Your task to perform on an android device: Go to notification settings Image 0: 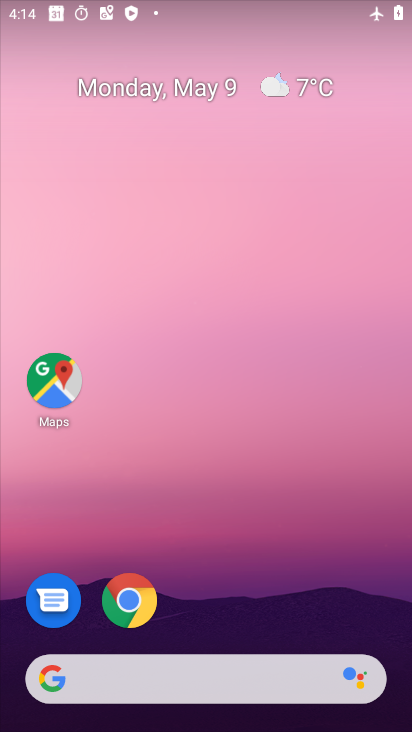
Step 0: drag from (315, 589) to (176, 197)
Your task to perform on an android device: Go to notification settings Image 1: 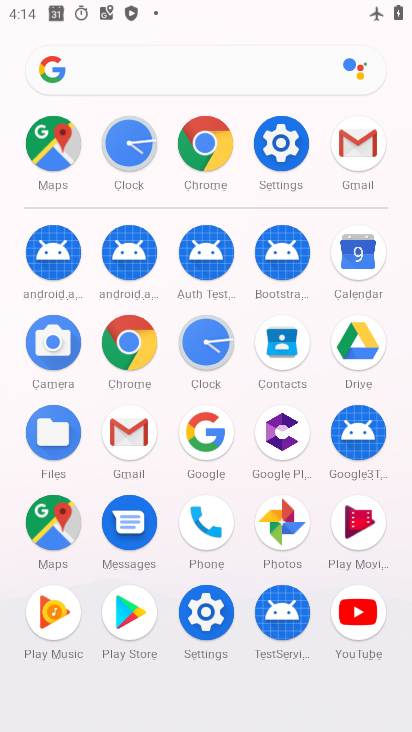
Step 1: click (278, 139)
Your task to perform on an android device: Go to notification settings Image 2: 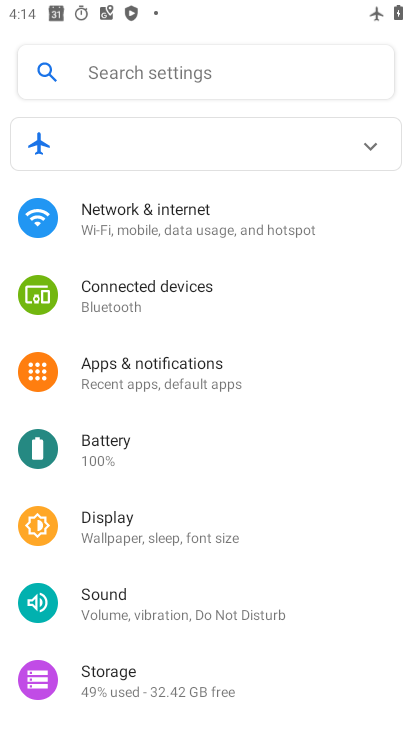
Step 2: click (201, 374)
Your task to perform on an android device: Go to notification settings Image 3: 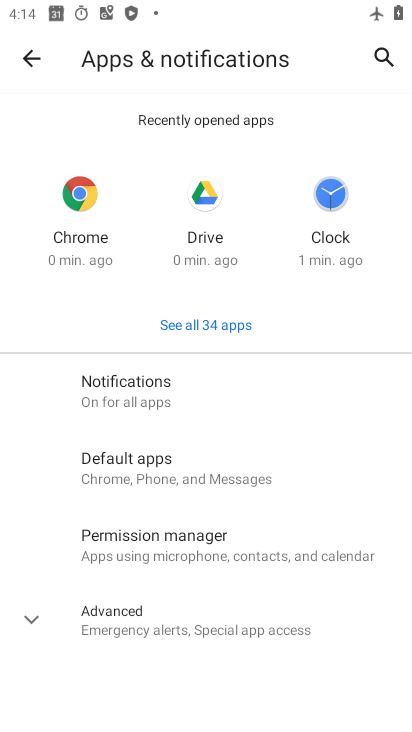
Step 3: click (155, 381)
Your task to perform on an android device: Go to notification settings Image 4: 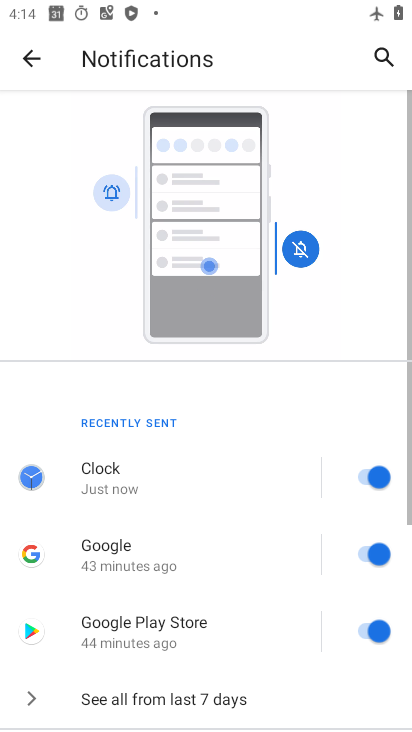
Step 4: task complete